Your task to perform on an android device: See recent photos Image 0: 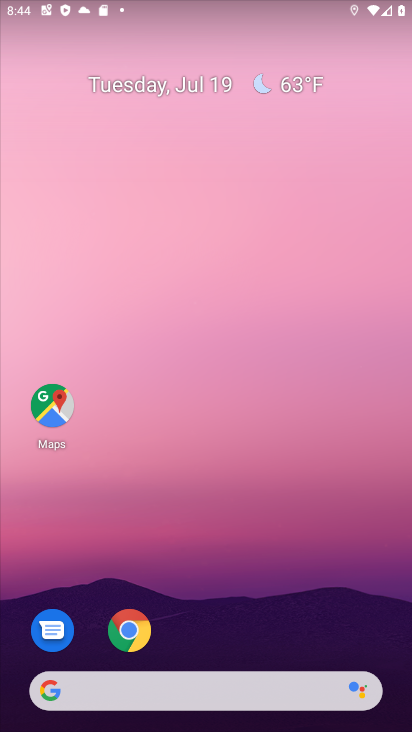
Step 0: drag from (183, 696) to (171, 111)
Your task to perform on an android device: See recent photos Image 1: 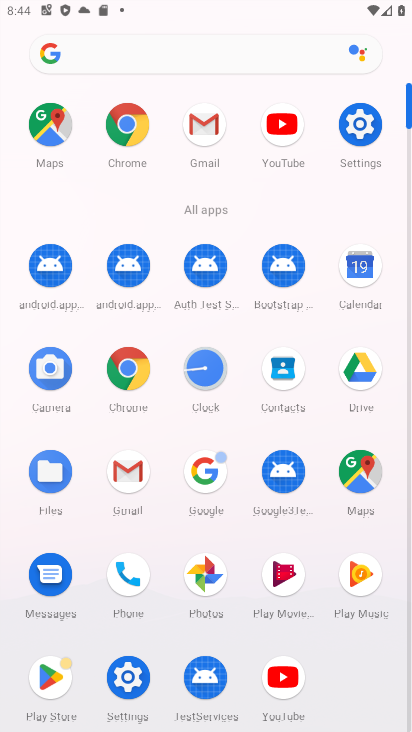
Step 1: click (204, 573)
Your task to perform on an android device: See recent photos Image 2: 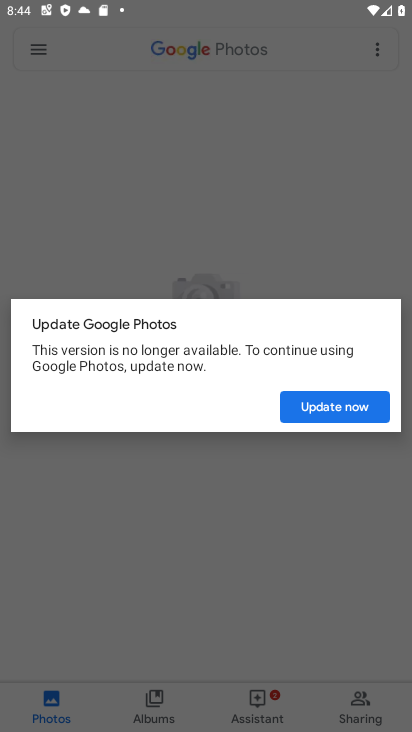
Step 2: click (347, 409)
Your task to perform on an android device: See recent photos Image 3: 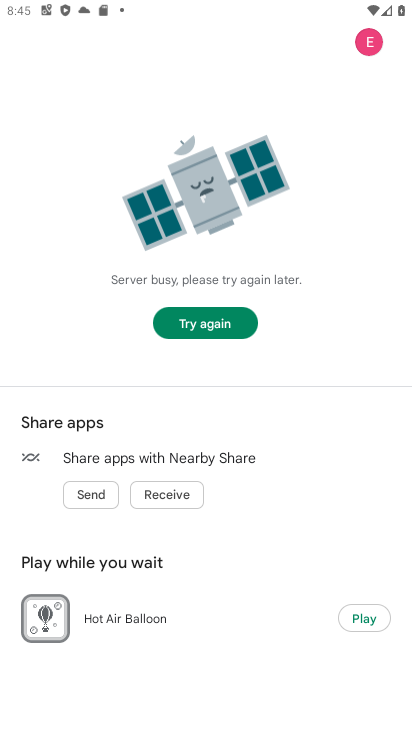
Step 3: click (215, 323)
Your task to perform on an android device: See recent photos Image 4: 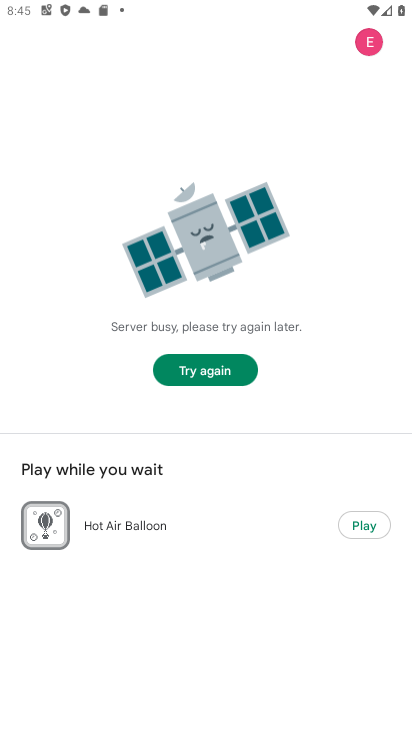
Step 4: click (187, 366)
Your task to perform on an android device: See recent photos Image 5: 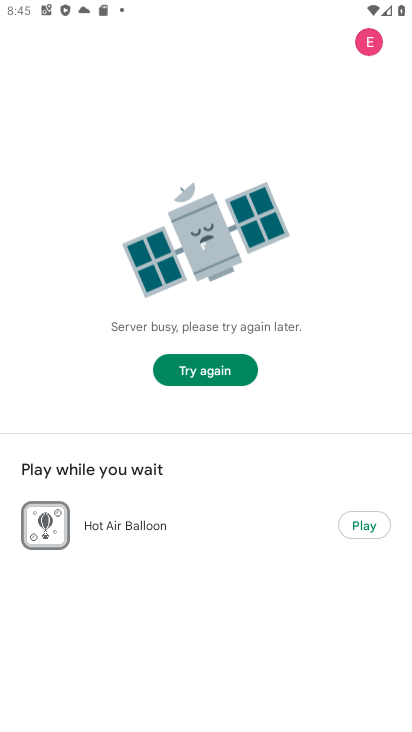
Step 5: click (187, 366)
Your task to perform on an android device: See recent photos Image 6: 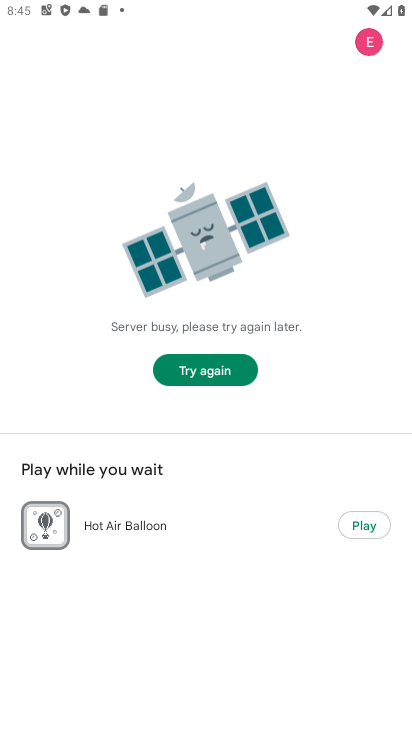
Step 6: task complete